Your task to perform on an android device: Open CNN.com Image 0: 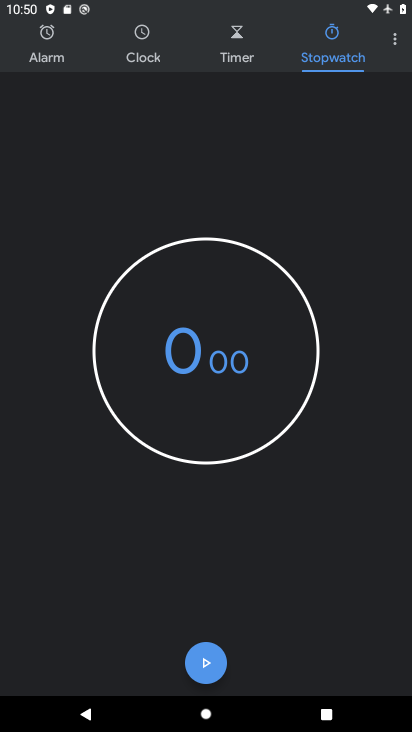
Step 0: press home button
Your task to perform on an android device: Open CNN.com Image 1: 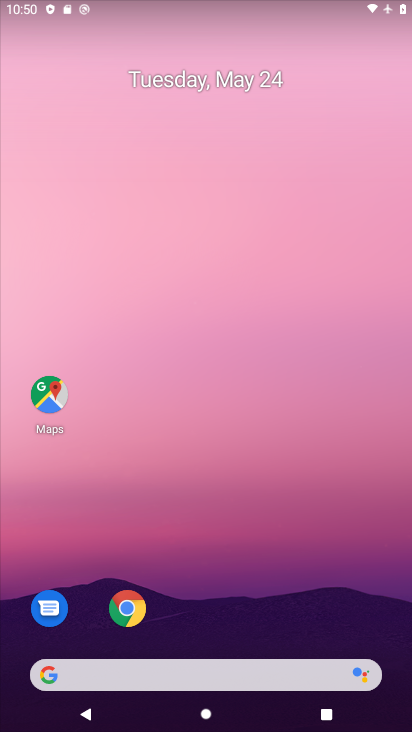
Step 1: click (128, 608)
Your task to perform on an android device: Open CNN.com Image 2: 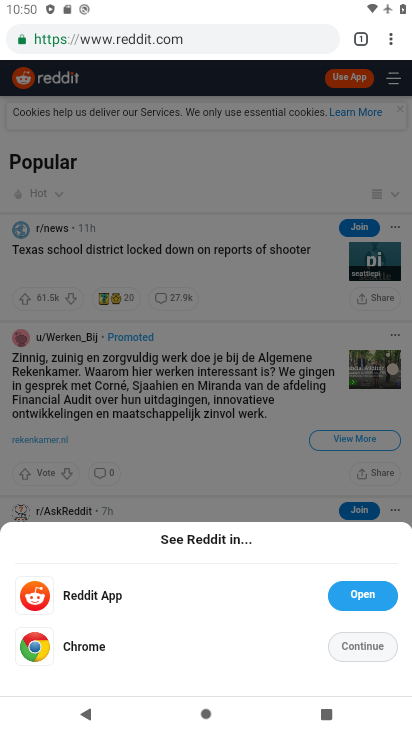
Step 2: click (214, 39)
Your task to perform on an android device: Open CNN.com Image 3: 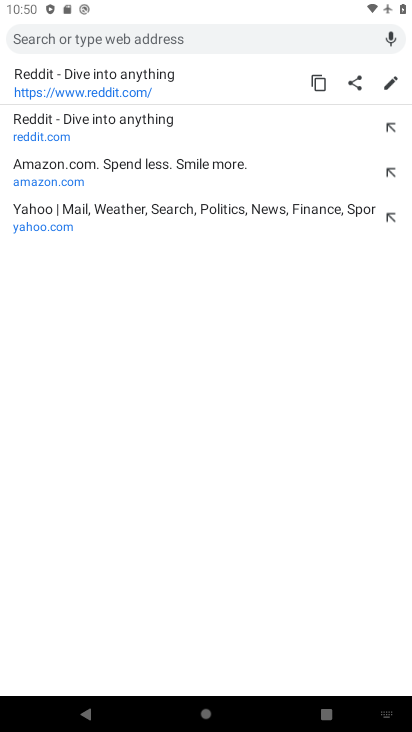
Step 3: type "cnn.com"
Your task to perform on an android device: Open CNN.com Image 4: 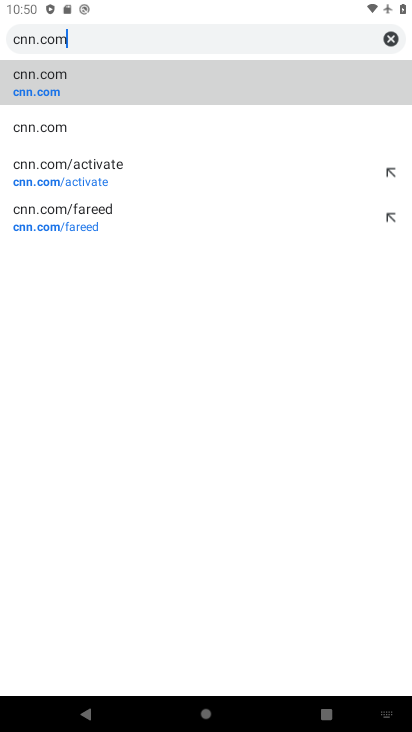
Step 4: click (50, 71)
Your task to perform on an android device: Open CNN.com Image 5: 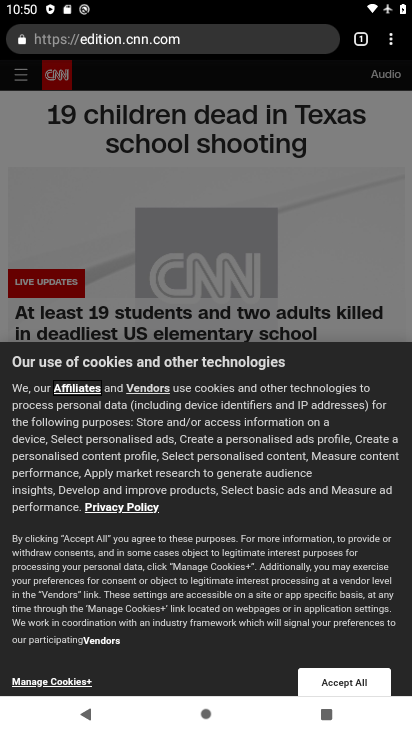
Step 5: task complete